Your task to perform on an android device: Is it going to rain today? Image 0: 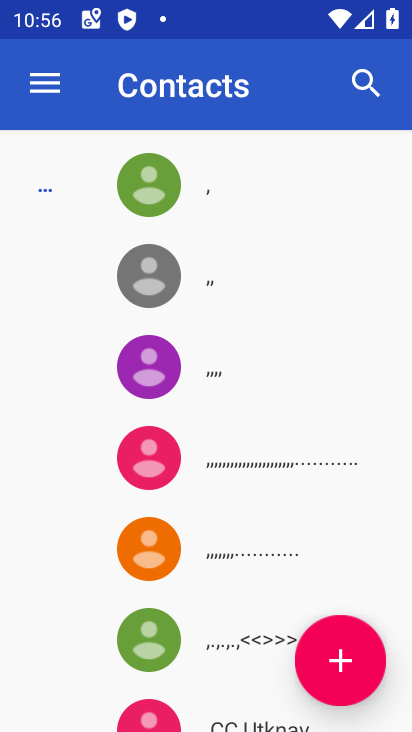
Step 0: press home button
Your task to perform on an android device: Is it going to rain today? Image 1: 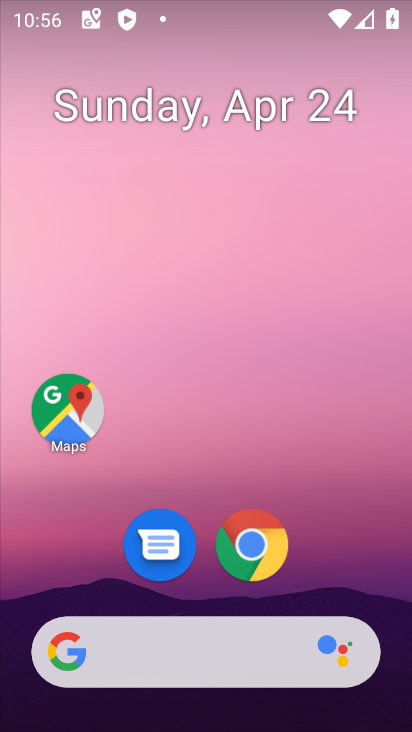
Step 1: drag from (284, 686) to (371, 101)
Your task to perform on an android device: Is it going to rain today? Image 2: 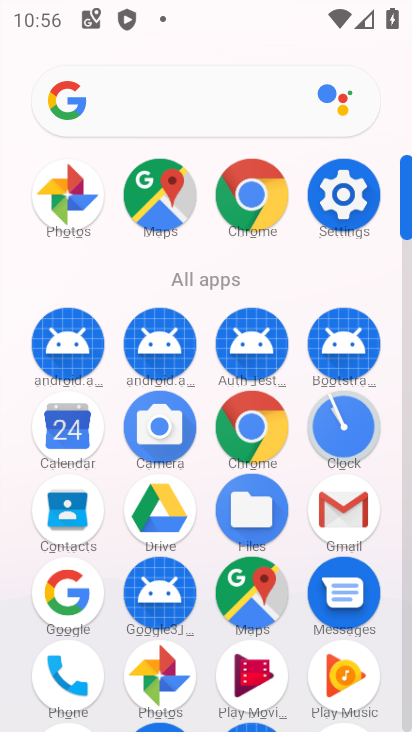
Step 2: click (130, 99)
Your task to perform on an android device: Is it going to rain today? Image 3: 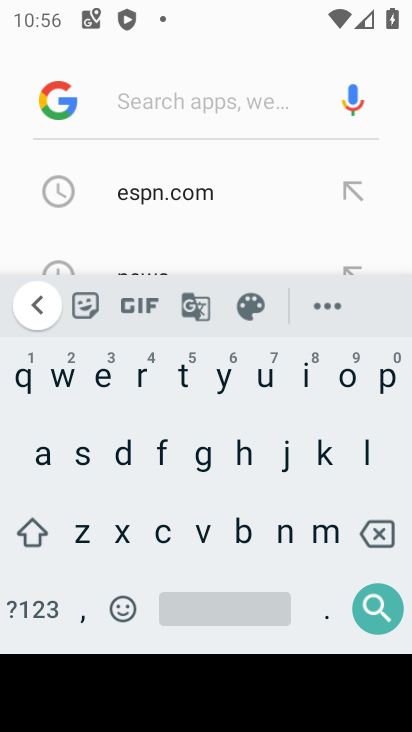
Step 3: drag from (173, 226) to (176, 149)
Your task to perform on an android device: Is it going to rain today? Image 4: 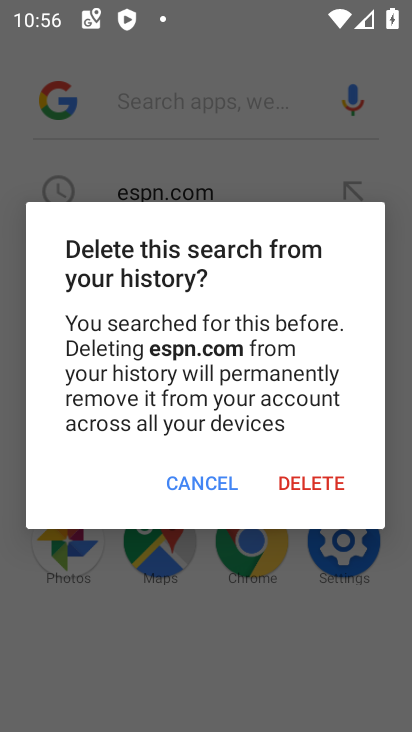
Step 4: click (201, 476)
Your task to perform on an android device: Is it going to rain today? Image 5: 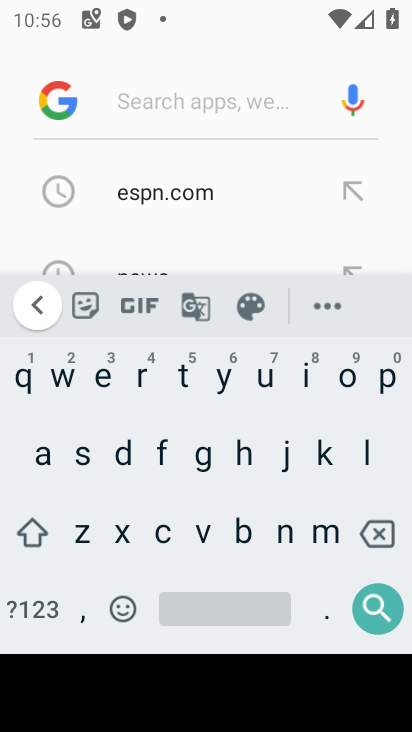
Step 5: click (57, 383)
Your task to perform on an android device: Is it going to rain today? Image 6: 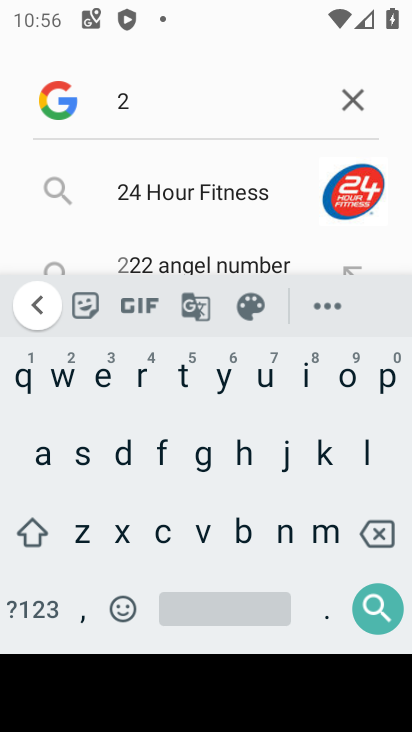
Step 6: click (377, 538)
Your task to perform on an android device: Is it going to rain today? Image 7: 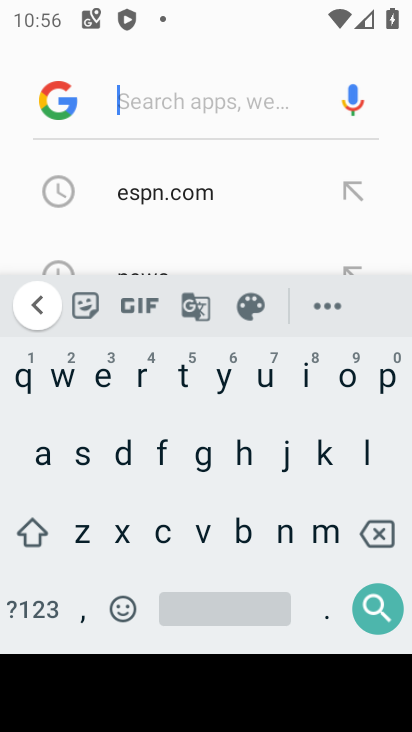
Step 7: click (60, 374)
Your task to perform on an android device: Is it going to rain today? Image 8: 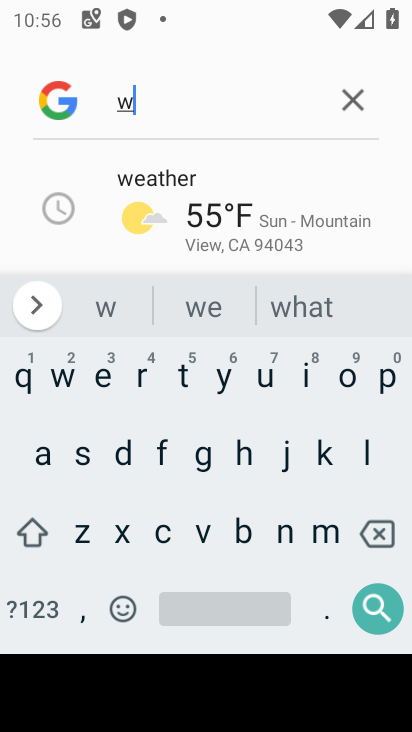
Step 8: click (174, 178)
Your task to perform on an android device: Is it going to rain today? Image 9: 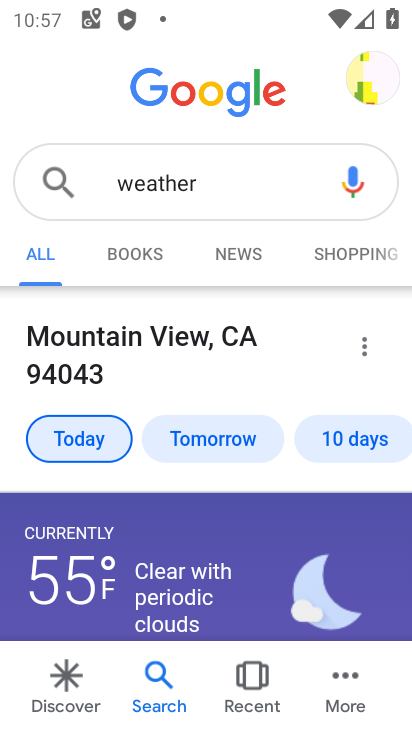
Step 9: click (93, 576)
Your task to perform on an android device: Is it going to rain today? Image 10: 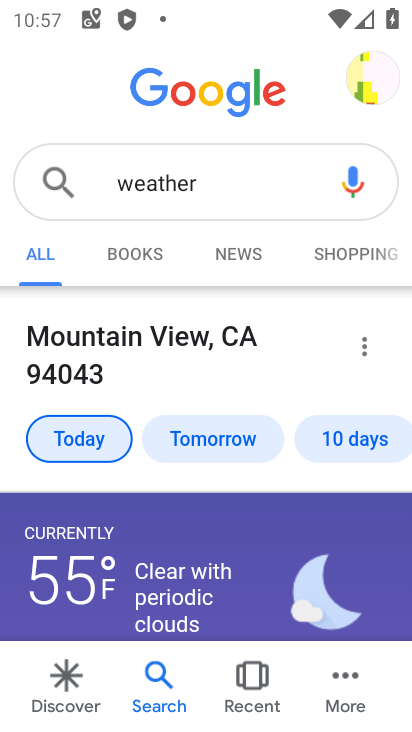
Step 10: click (68, 432)
Your task to perform on an android device: Is it going to rain today? Image 11: 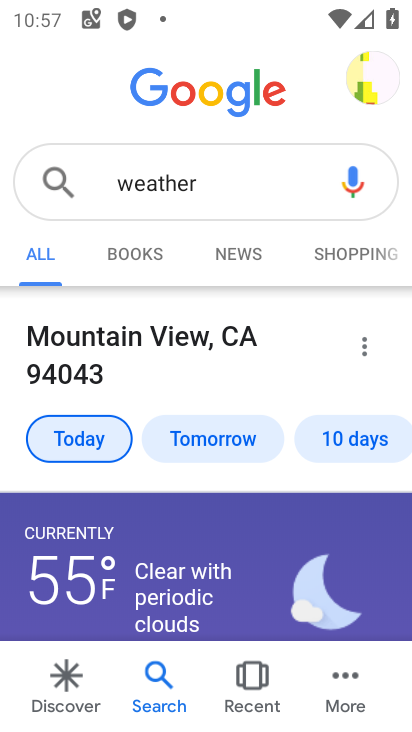
Step 11: task complete